Your task to perform on an android device: What is the news today? Image 0: 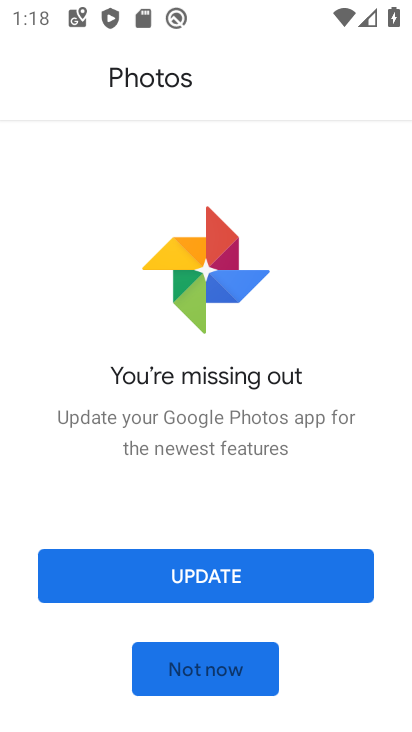
Step 0: click (197, 658)
Your task to perform on an android device: What is the news today? Image 1: 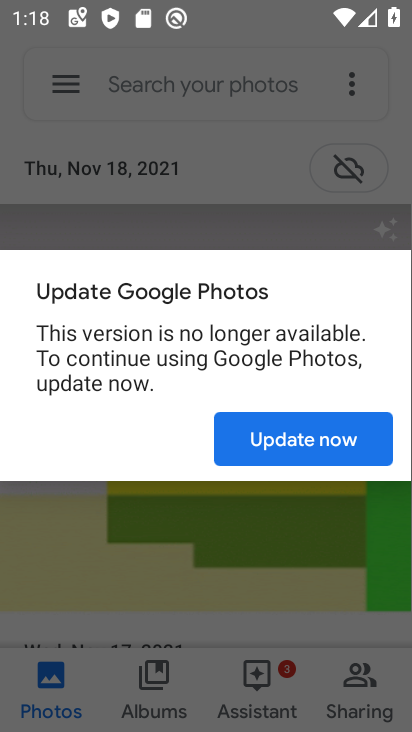
Step 1: click (282, 442)
Your task to perform on an android device: What is the news today? Image 2: 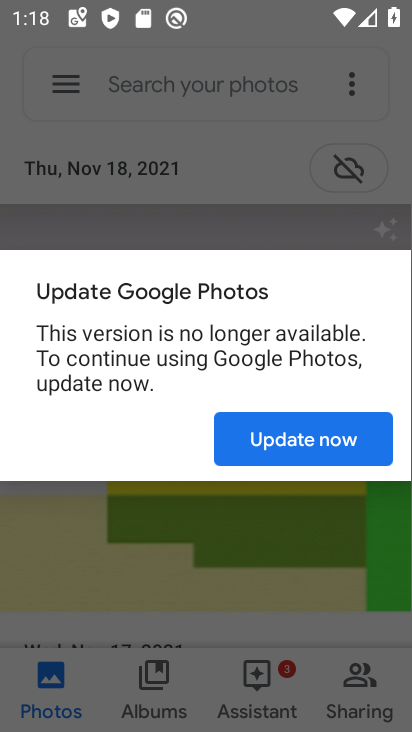
Step 2: click (282, 442)
Your task to perform on an android device: What is the news today? Image 3: 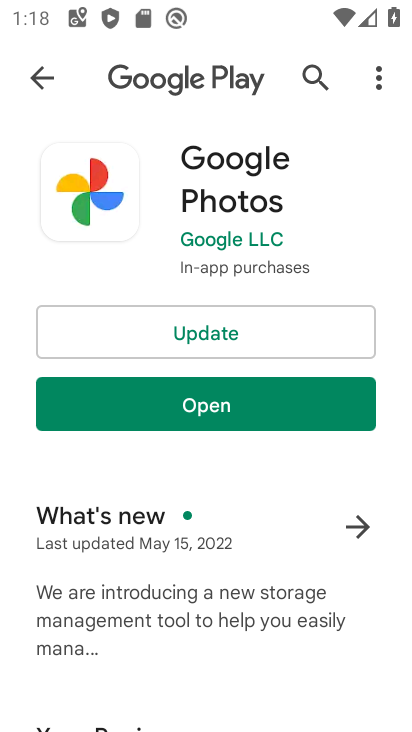
Step 3: click (215, 412)
Your task to perform on an android device: What is the news today? Image 4: 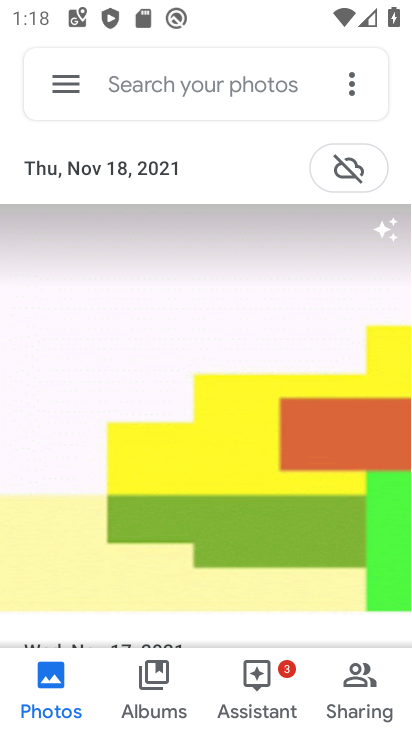
Step 4: press back button
Your task to perform on an android device: What is the news today? Image 5: 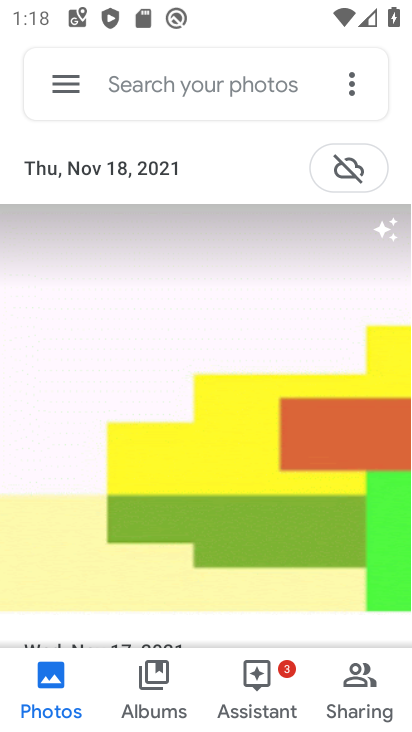
Step 5: press back button
Your task to perform on an android device: What is the news today? Image 6: 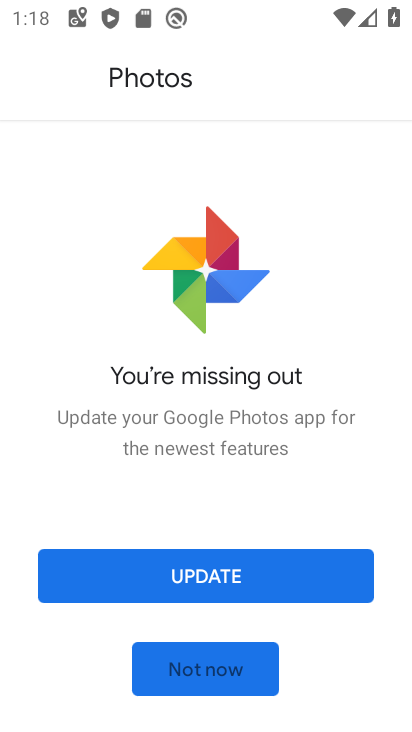
Step 6: press back button
Your task to perform on an android device: What is the news today? Image 7: 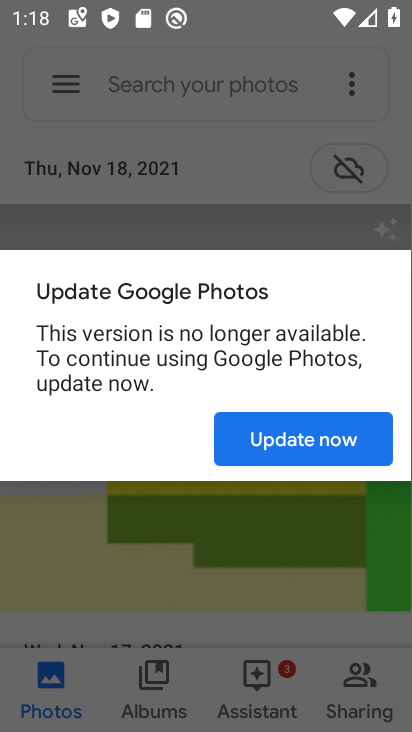
Step 7: press home button
Your task to perform on an android device: What is the news today? Image 8: 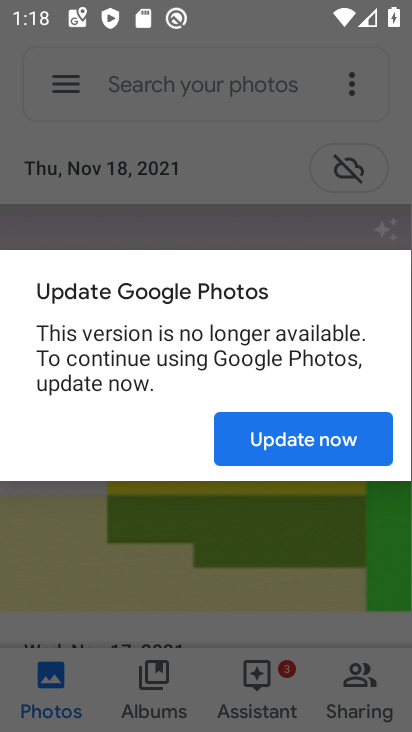
Step 8: press home button
Your task to perform on an android device: What is the news today? Image 9: 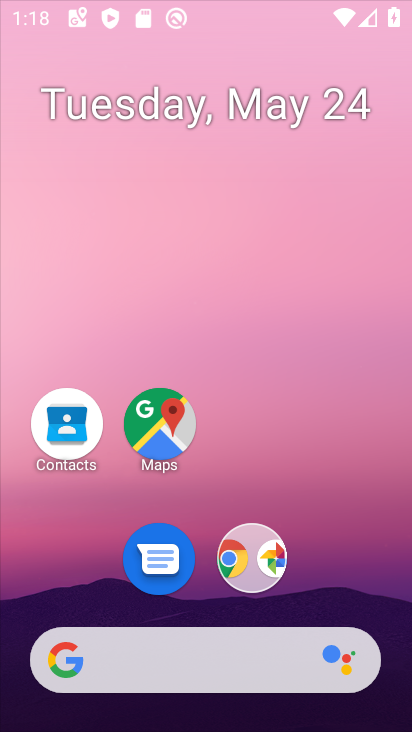
Step 9: press home button
Your task to perform on an android device: What is the news today? Image 10: 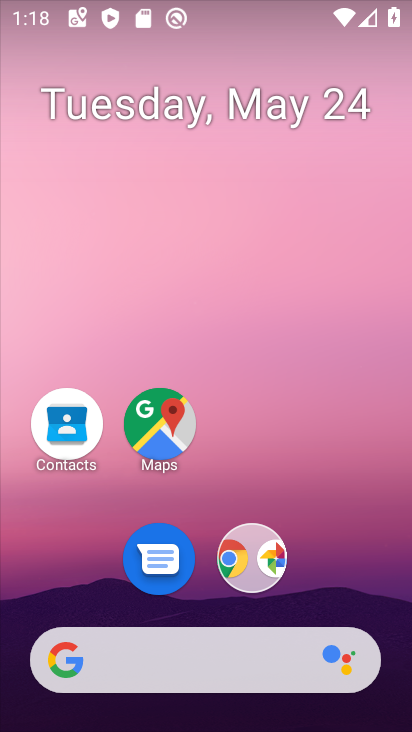
Step 10: drag from (5, 259) to (388, 366)
Your task to perform on an android device: What is the news today? Image 11: 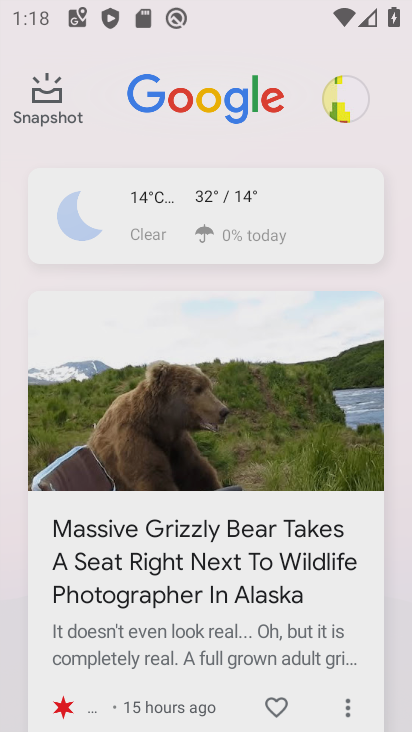
Step 11: click (180, 200)
Your task to perform on an android device: What is the news today? Image 12: 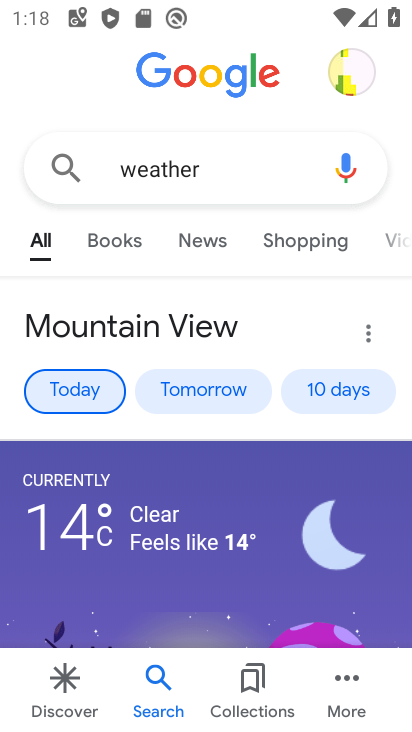
Step 12: task complete